Your task to perform on an android device: toggle translation in the chrome app Image 0: 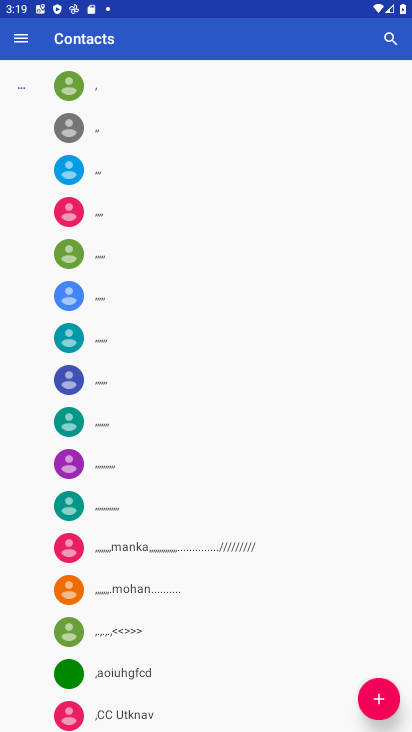
Step 0: press home button
Your task to perform on an android device: toggle translation in the chrome app Image 1: 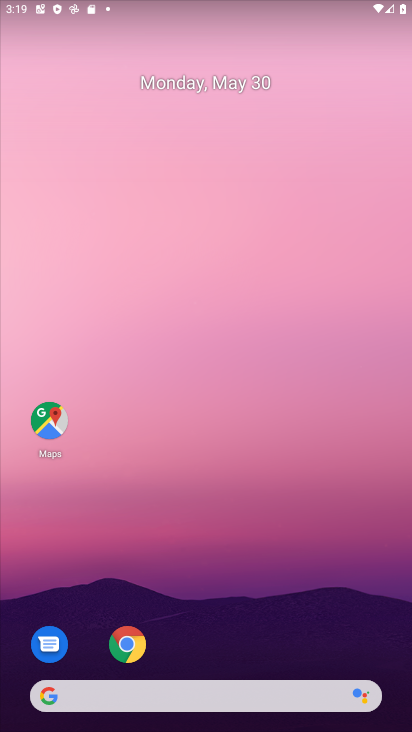
Step 1: drag from (216, 655) to (217, 95)
Your task to perform on an android device: toggle translation in the chrome app Image 2: 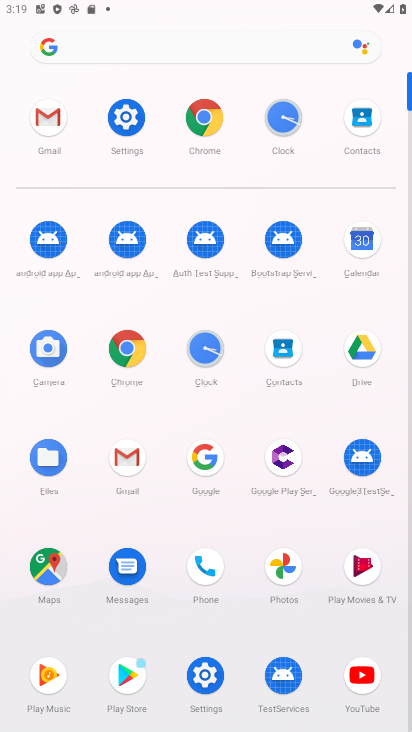
Step 2: click (208, 137)
Your task to perform on an android device: toggle translation in the chrome app Image 3: 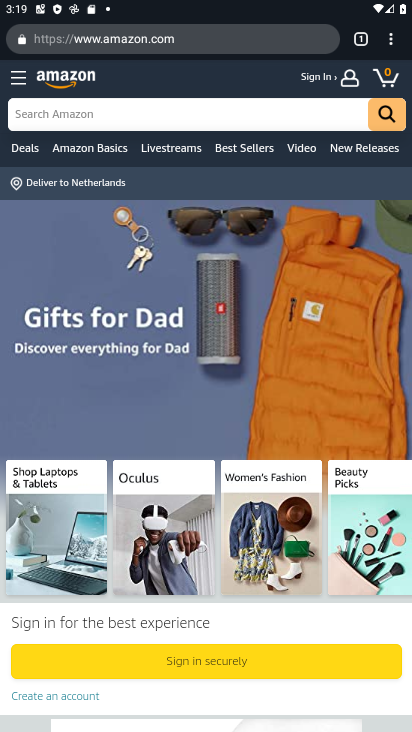
Step 3: click (394, 52)
Your task to perform on an android device: toggle translation in the chrome app Image 4: 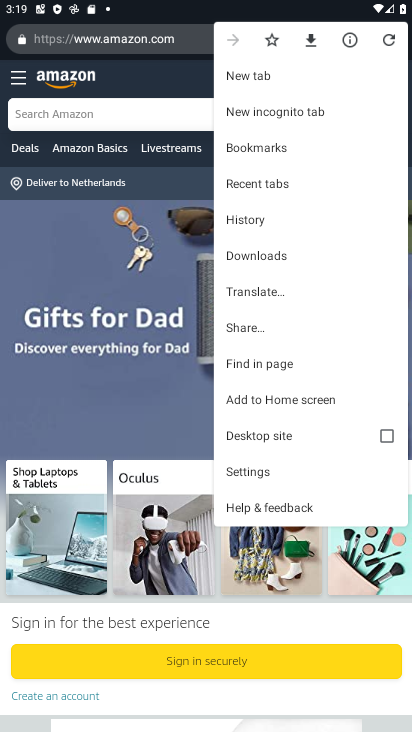
Step 4: click (264, 465)
Your task to perform on an android device: toggle translation in the chrome app Image 5: 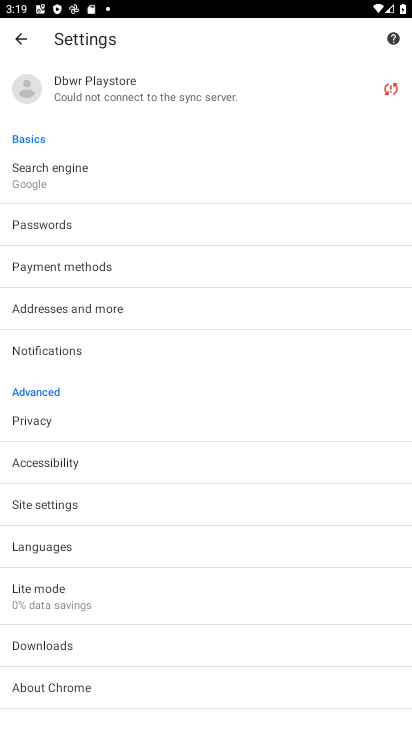
Step 5: task complete